Your task to perform on an android device: Go to internet settings Image 0: 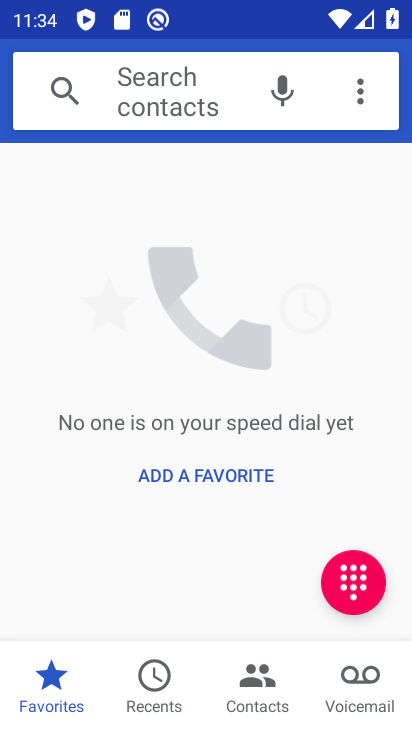
Step 0: press home button
Your task to perform on an android device: Go to internet settings Image 1: 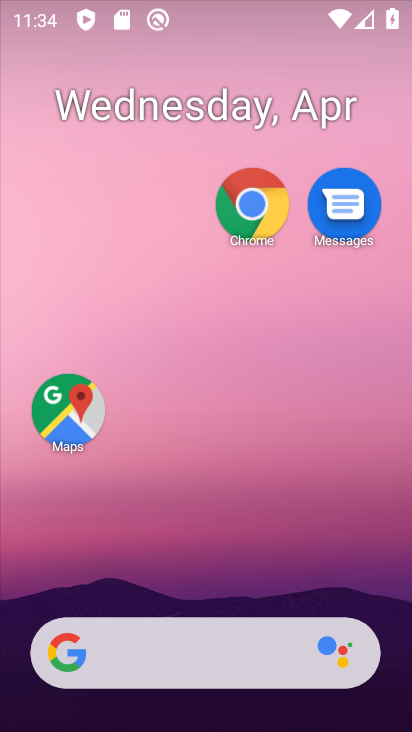
Step 1: drag from (188, 597) to (193, 6)
Your task to perform on an android device: Go to internet settings Image 2: 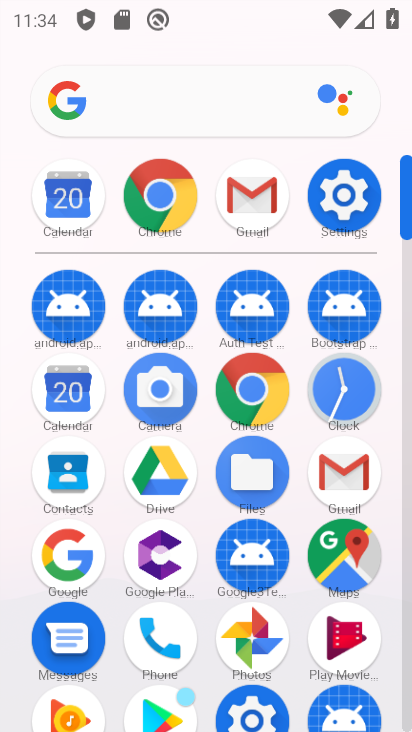
Step 2: click (337, 194)
Your task to perform on an android device: Go to internet settings Image 3: 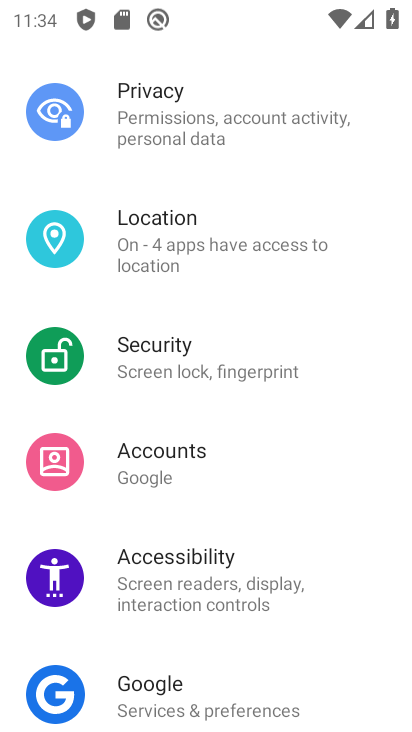
Step 3: drag from (224, 170) to (208, 684)
Your task to perform on an android device: Go to internet settings Image 4: 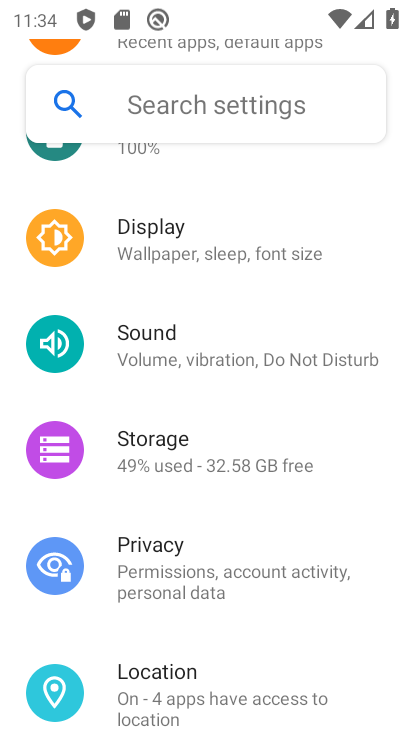
Step 4: drag from (196, 220) to (142, 716)
Your task to perform on an android device: Go to internet settings Image 5: 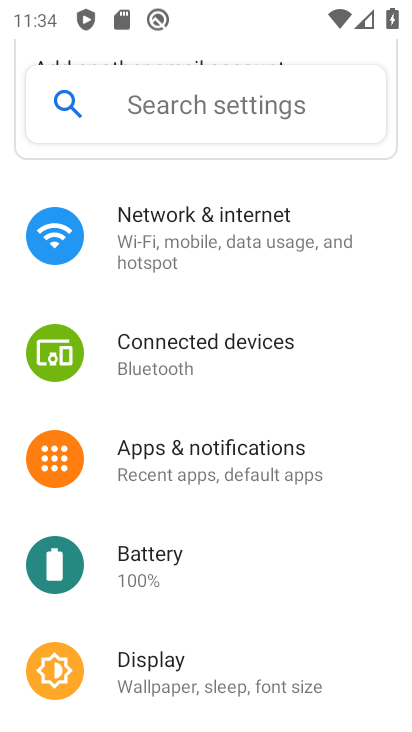
Step 5: click (192, 249)
Your task to perform on an android device: Go to internet settings Image 6: 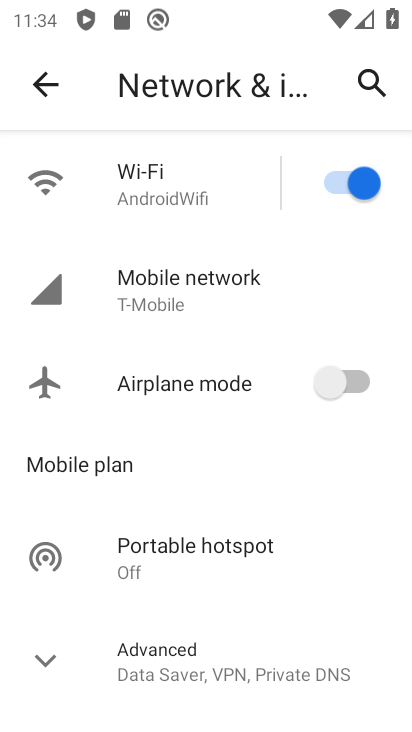
Step 6: click (209, 297)
Your task to perform on an android device: Go to internet settings Image 7: 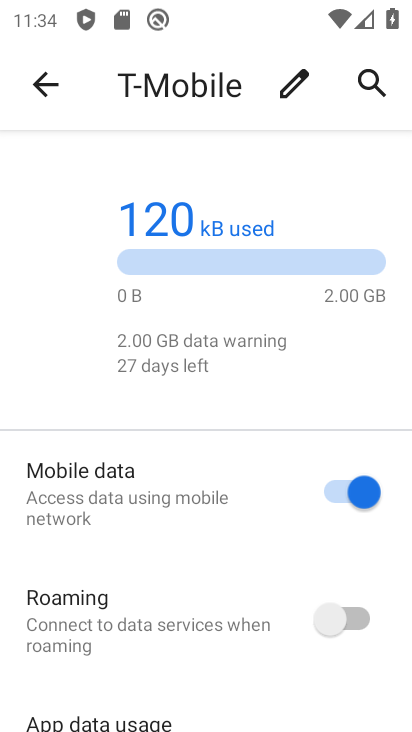
Step 7: task complete